Your task to perform on an android device: Open Yahoo.com Image 0: 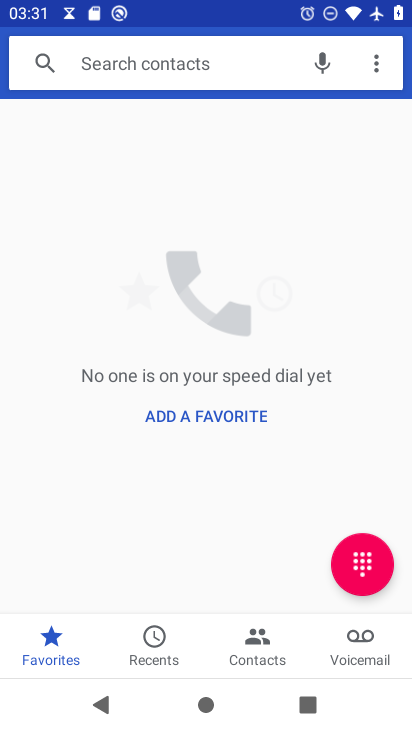
Step 0: press home button
Your task to perform on an android device: Open Yahoo.com Image 1: 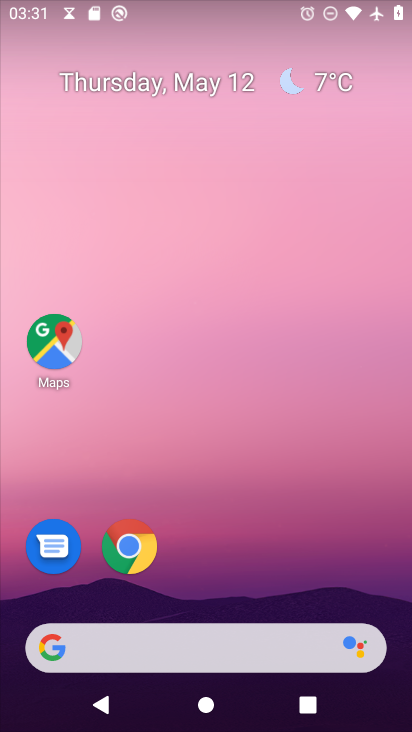
Step 1: drag from (159, 669) to (287, 231)
Your task to perform on an android device: Open Yahoo.com Image 2: 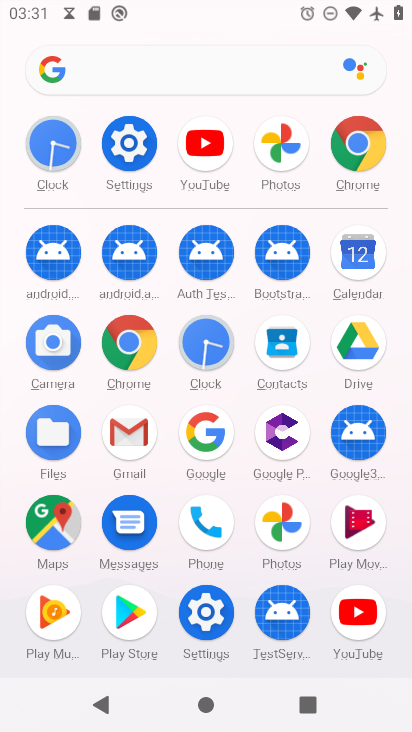
Step 2: click (124, 349)
Your task to perform on an android device: Open Yahoo.com Image 3: 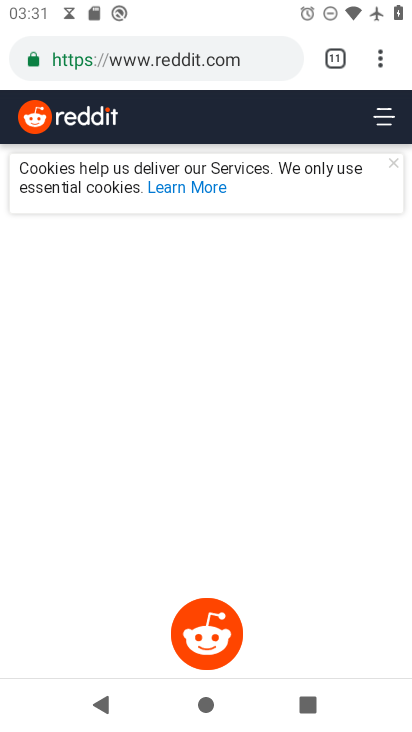
Step 3: drag from (385, 62) to (266, 113)
Your task to perform on an android device: Open Yahoo.com Image 4: 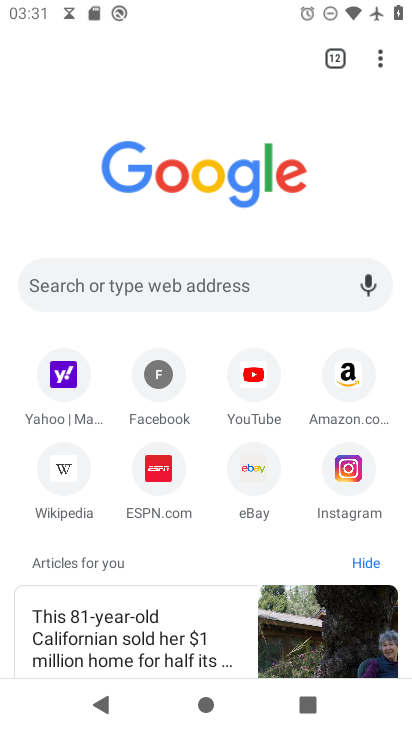
Step 4: click (69, 376)
Your task to perform on an android device: Open Yahoo.com Image 5: 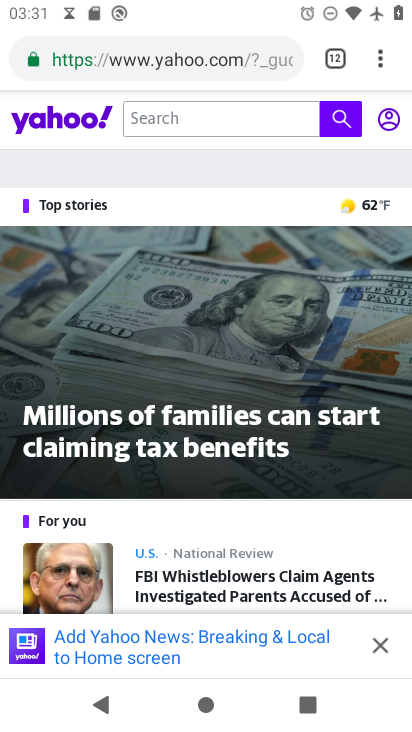
Step 5: task complete